Your task to perform on an android device: turn off notifications settings in the gmail app Image 0: 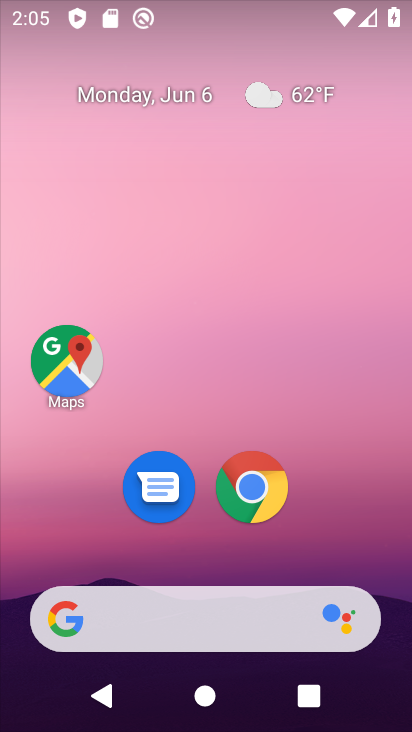
Step 0: drag from (400, 600) to (273, 139)
Your task to perform on an android device: turn off notifications settings in the gmail app Image 1: 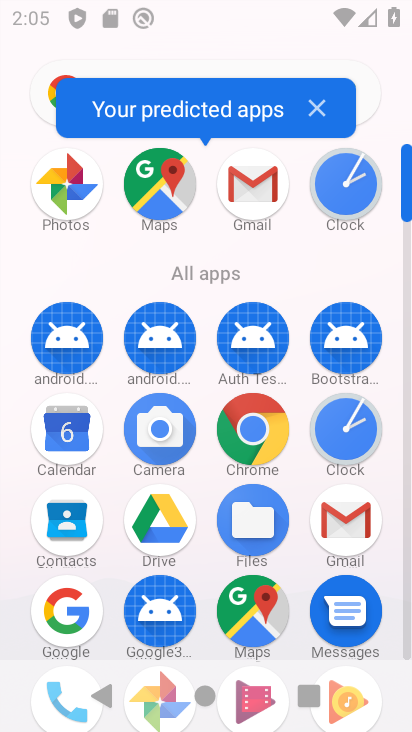
Step 1: drag from (402, 590) to (386, 372)
Your task to perform on an android device: turn off notifications settings in the gmail app Image 2: 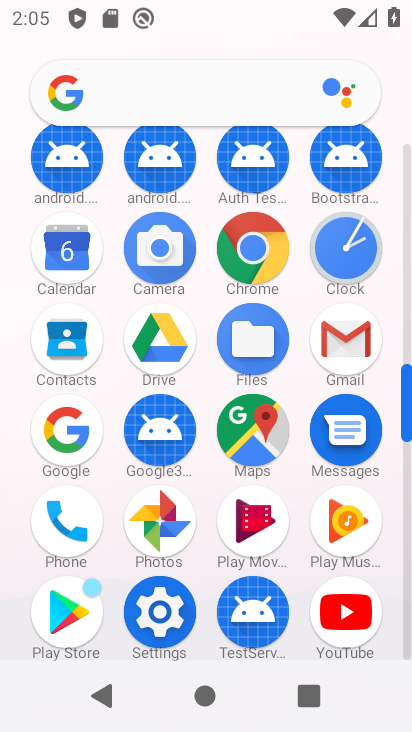
Step 2: click (348, 348)
Your task to perform on an android device: turn off notifications settings in the gmail app Image 3: 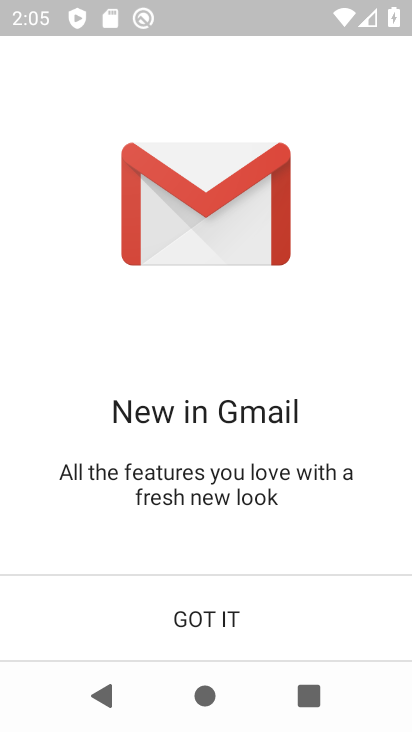
Step 3: click (228, 616)
Your task to perform on an android device: turn off notifications settings in the gmail app Image 4: 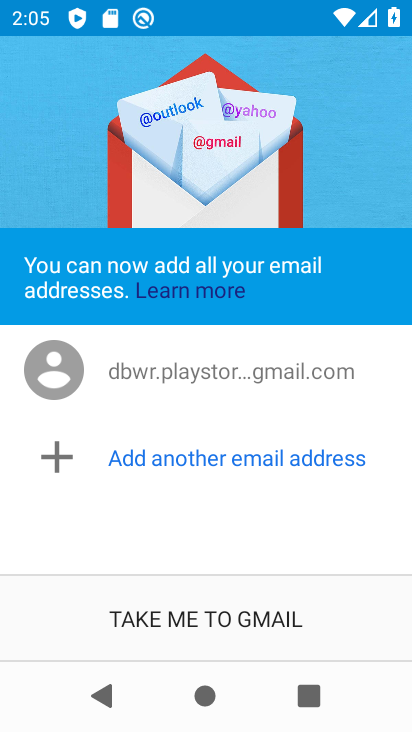
Step 4: click (228, 616)
Your task to perform on an android device: turn off notifications settings in the gmail app Image 5: 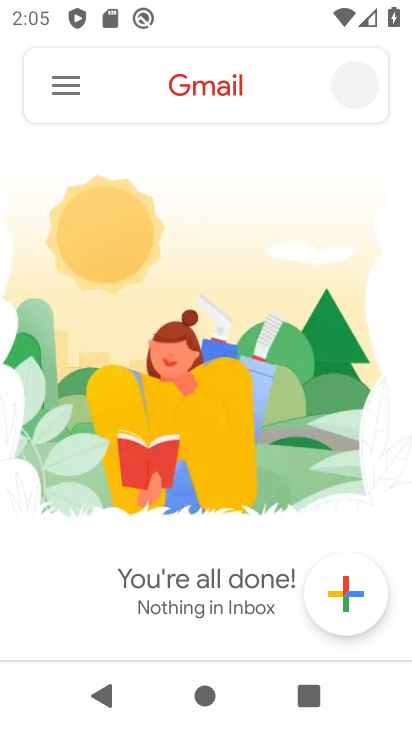
Step 5: click (48, 73)
Your task to perform on an android device: turn off notifications settings in the gmail app Image 6: 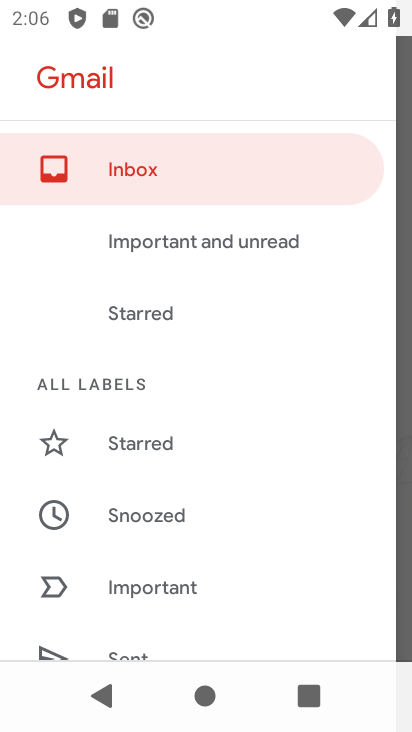
Step 6: drag from (141, 630) to (107, 282)
Your task to perform on an android device: turn off notifications settings in the gmail app Image 7: 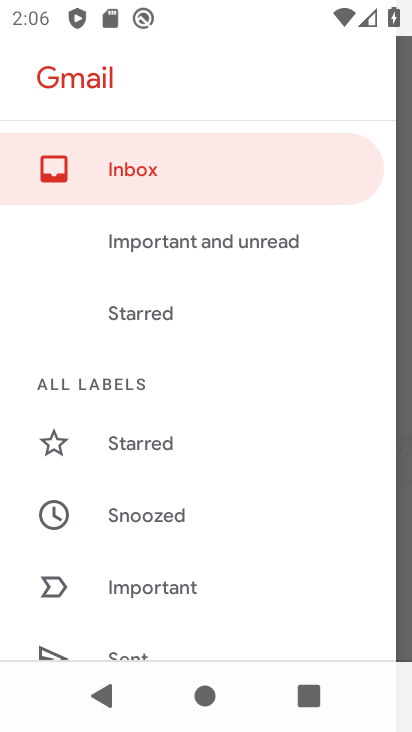
Step 7: drag from (178, 597) to (178, 140)
Your task to perform on an android device: turn off notifications settings in the gmail app Image 8: 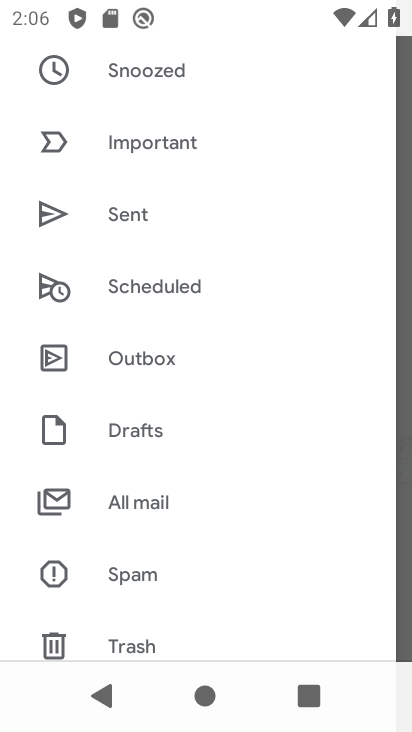
Step 8: drag from (193, 580) to (183, 192)
Your task to perform on an android device: turn off notifications settings in the gmail app Image 9: 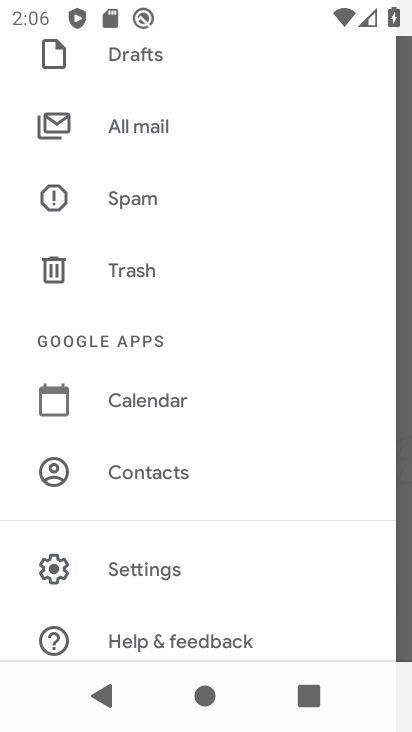
Step 9: click (189, 583)
Your task to perform on an android device: turn off notifications settings in the gmail app Image 10: 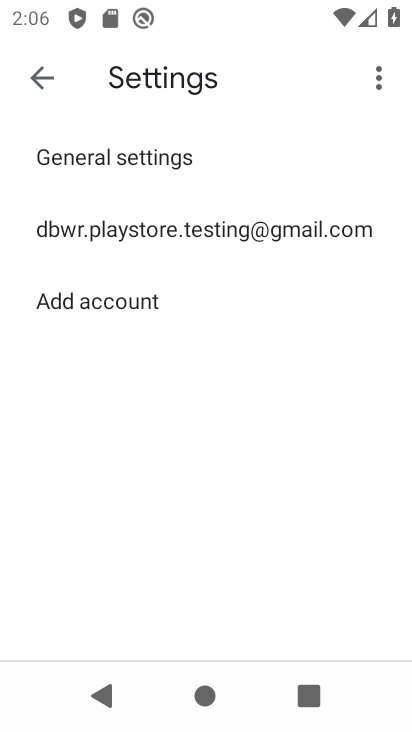
Step 10: click (202, 241)
Your task to perform on an android device: turn off notifications settings in the gmail app Image 11: 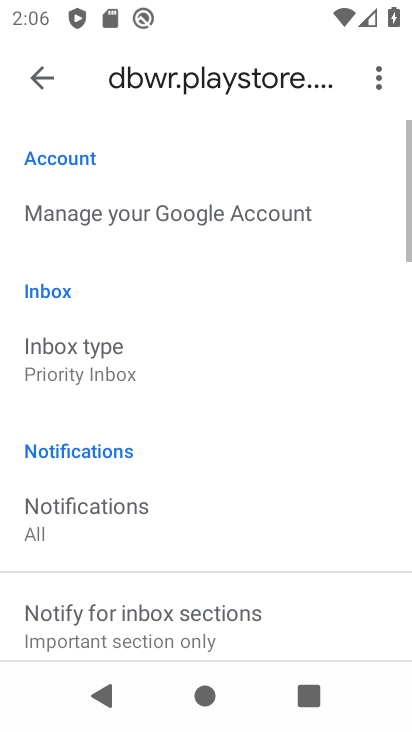
Step 11: drag from (219, 538) to (164, 98)
Your task to perform on an android device: turn off notifications settings in the gmail app Image 12: 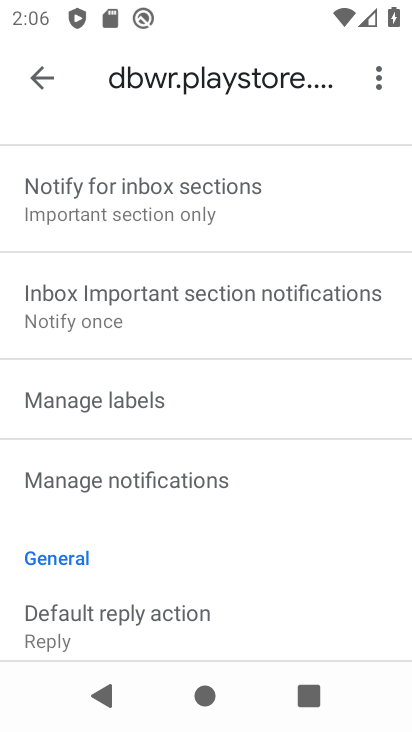
Step 12: click (186, 468)
Your task to perform on an android device: turn off notifications settings in the gmail app Image 13: 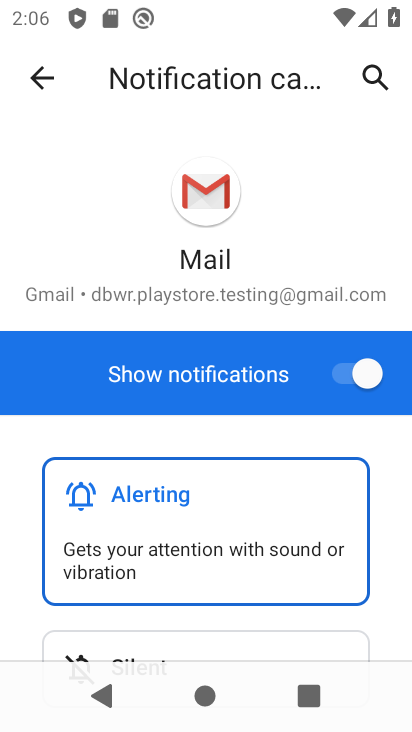
Step 13: task complete